Your task to perform on an android device: Play the last video I watched on Youtube Image 0: 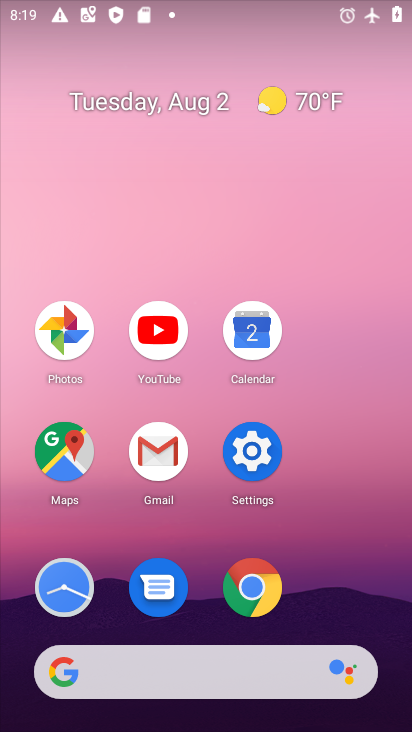
Step 0: click (151, 333)
Your task to perform on an android device: Play the last video I watched on Youtube Image 1: 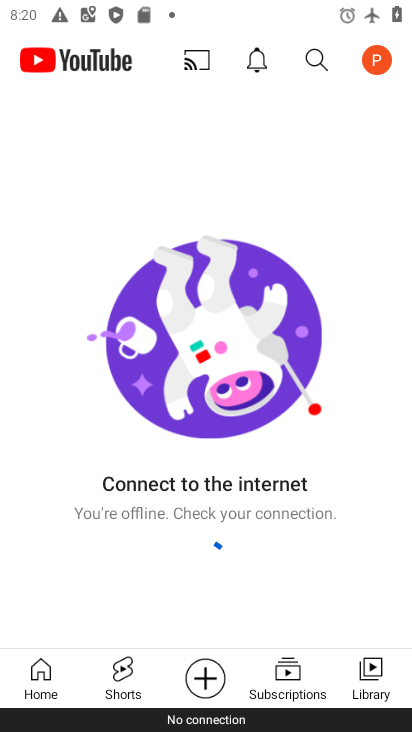
Step 1: click (376, 673)
Your task to perform on an android device: Play the last video I watched on Youtube Image 2: 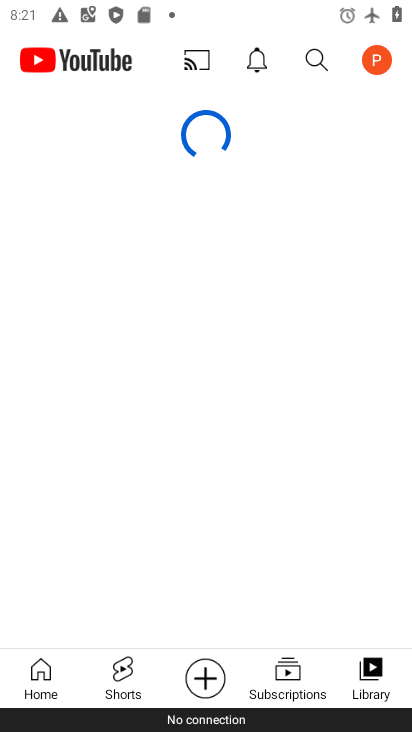
Step 2: task complete